Your task to perform on an android device: What's the weather? Image 0: 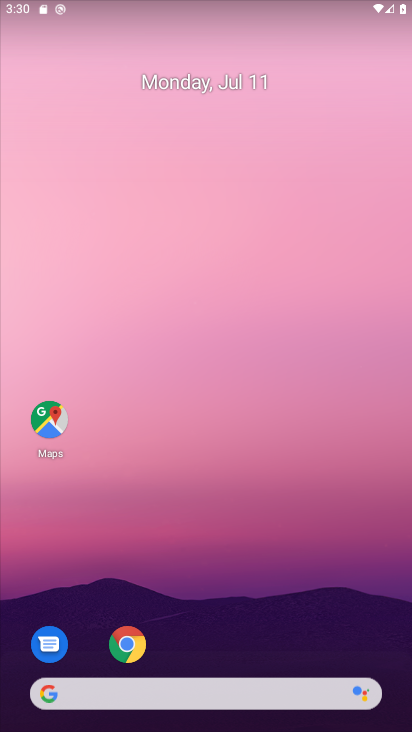
Step 0: drag from (243, 697) to (326, 0)
Your task to perform on an android device: What's the weather? Image 1: 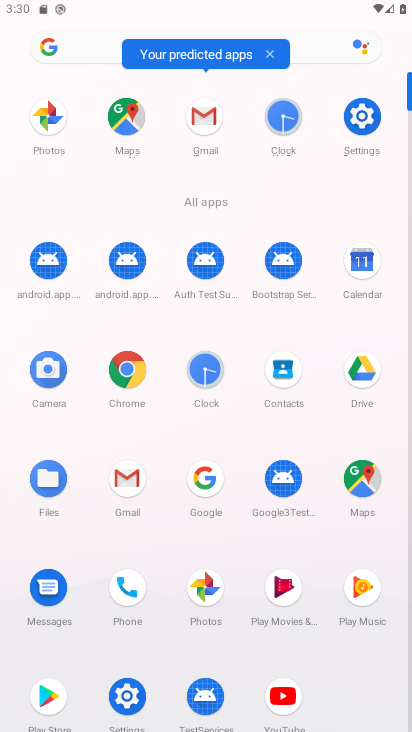
Step 1: click (206, 479)
Your task to perform on an android device: What's the weather? Image 2: 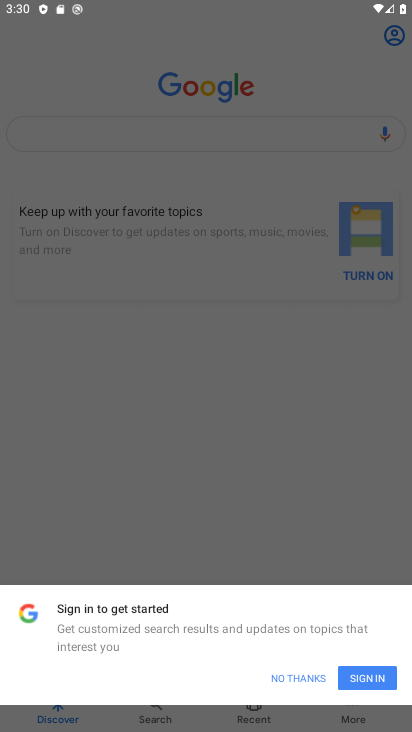
Step 2: click (307, 678)
Your task to perform on an android device: What's the weather? Image 3: 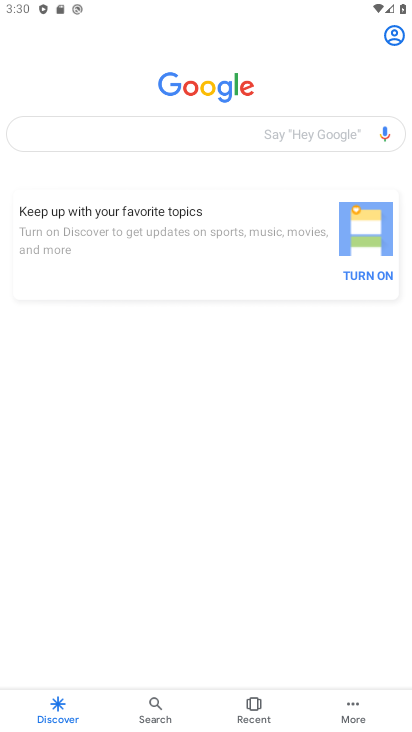
Step 3: click (179, 122)
Your task to perform on an android device: What's the weather? Image 4: 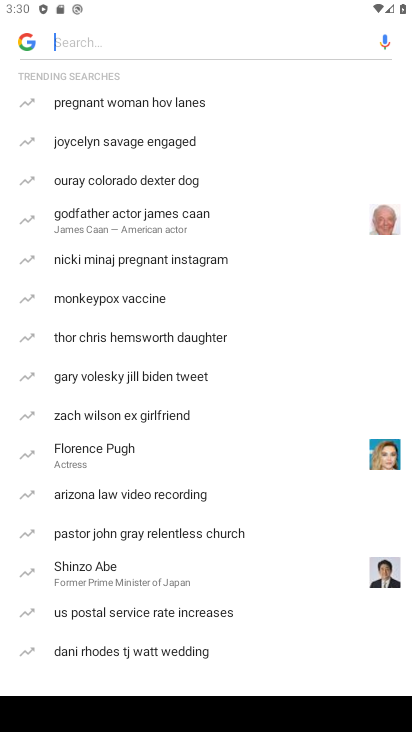
Step 4: type "weather"
Your task to perform on an android device: What's the weather? Image 5: 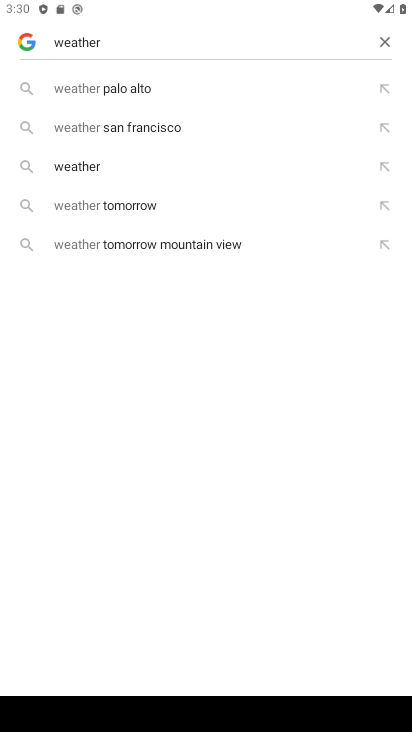
Step 5: click (94, 165)
Your task to perform on an android device: What's the weather? Image 6: 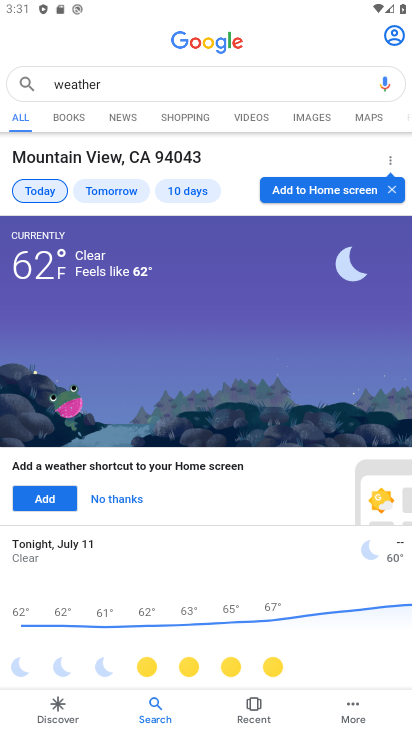
Step 6: task complete